Your task to perform on an android device: Go to internet settings Image 0: 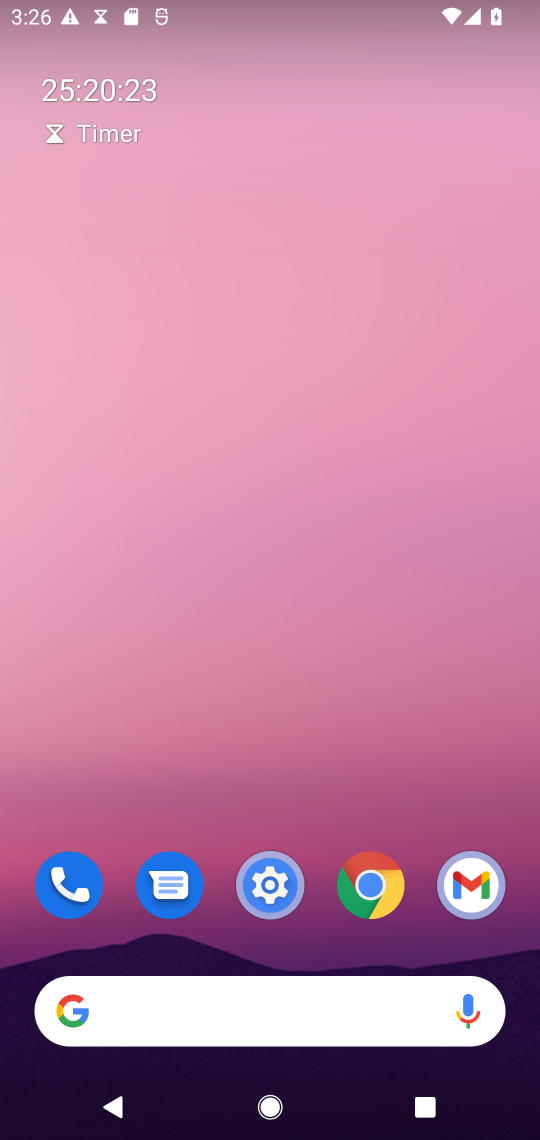
Step 0: drag from (315, 986) to (440, 58)
Your task to perform on an android device: Go to internet settings Image 1: 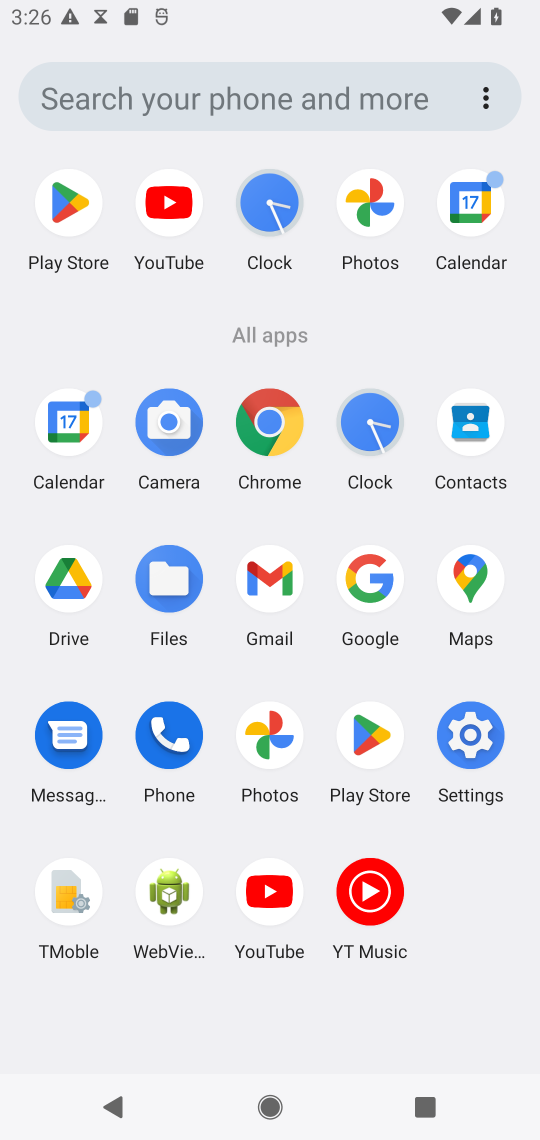
Step 1: click (480, 738)
Your task to perform on an android device: Go to internet settings Image 2: 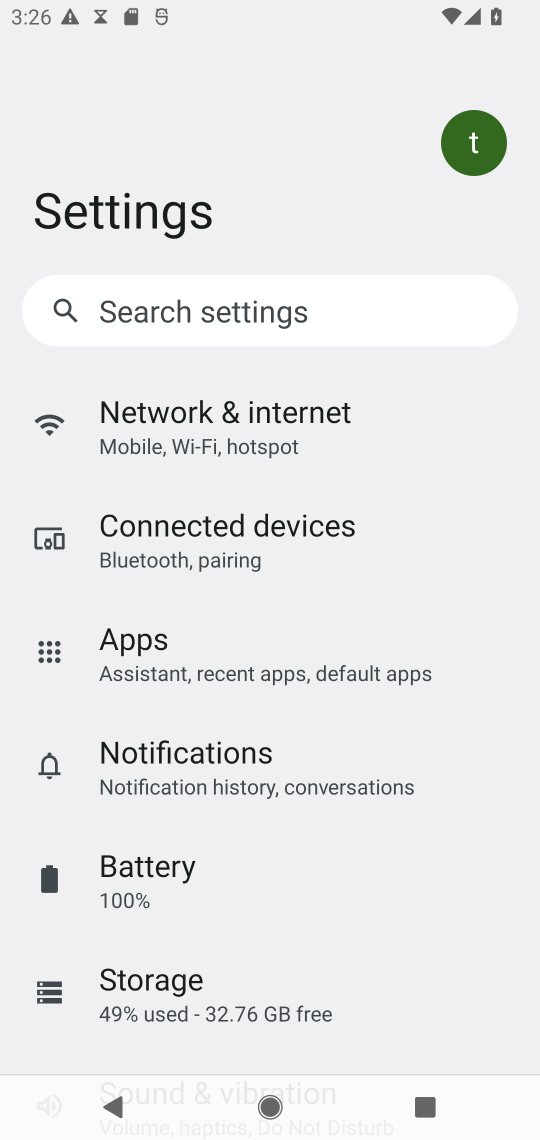
Step 2: click (220, 437)
Your task to perform on an android device: Go to internet settings Image 3: 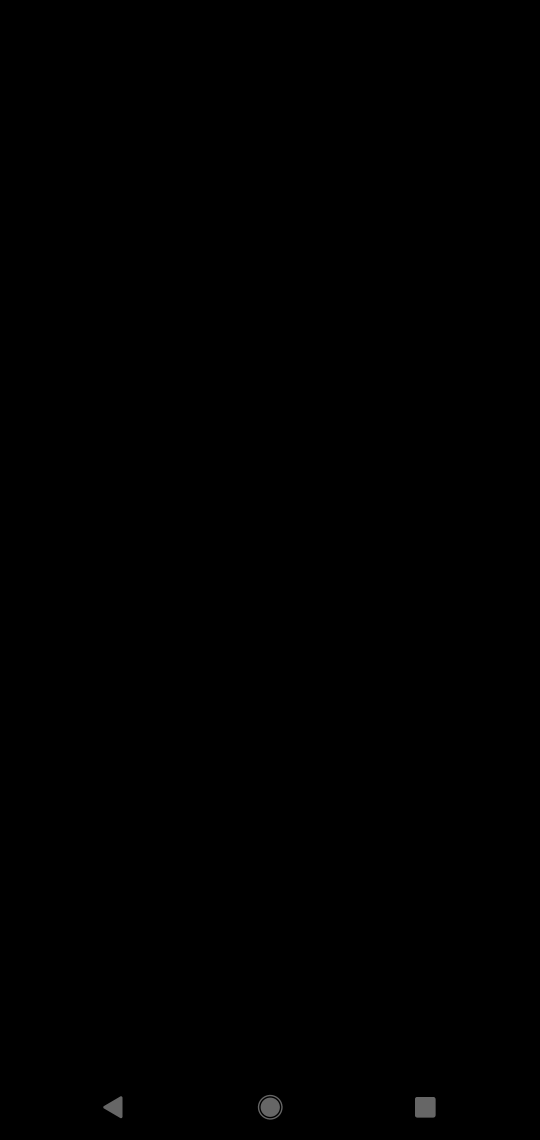
Step 3: press back button
Your task to perform on an android device: Go to internet settings Image 4: 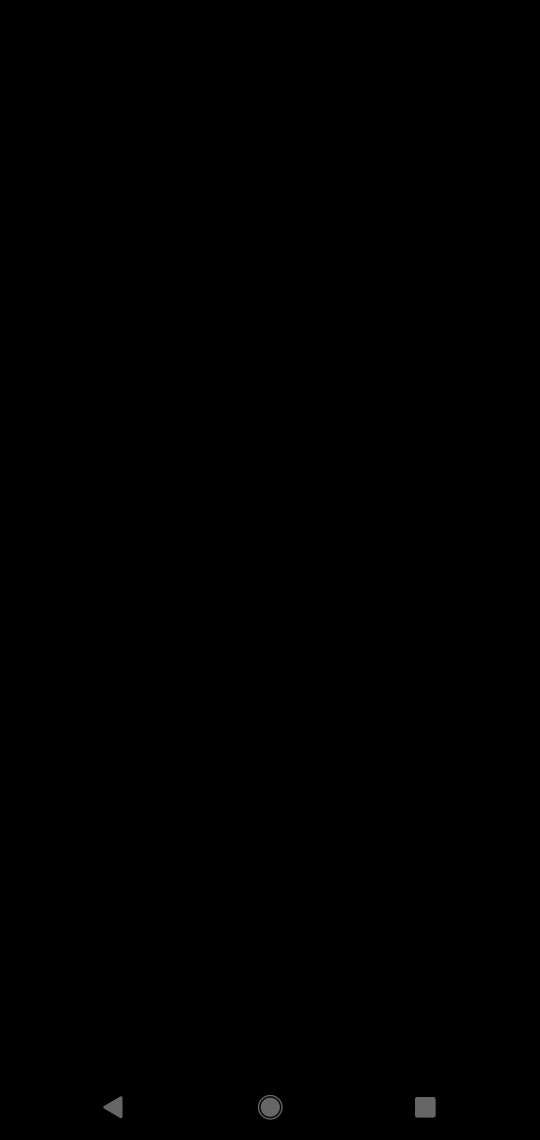
Step 4: press back button
Your task to perform on an android device: Go to internet settings Image 5: 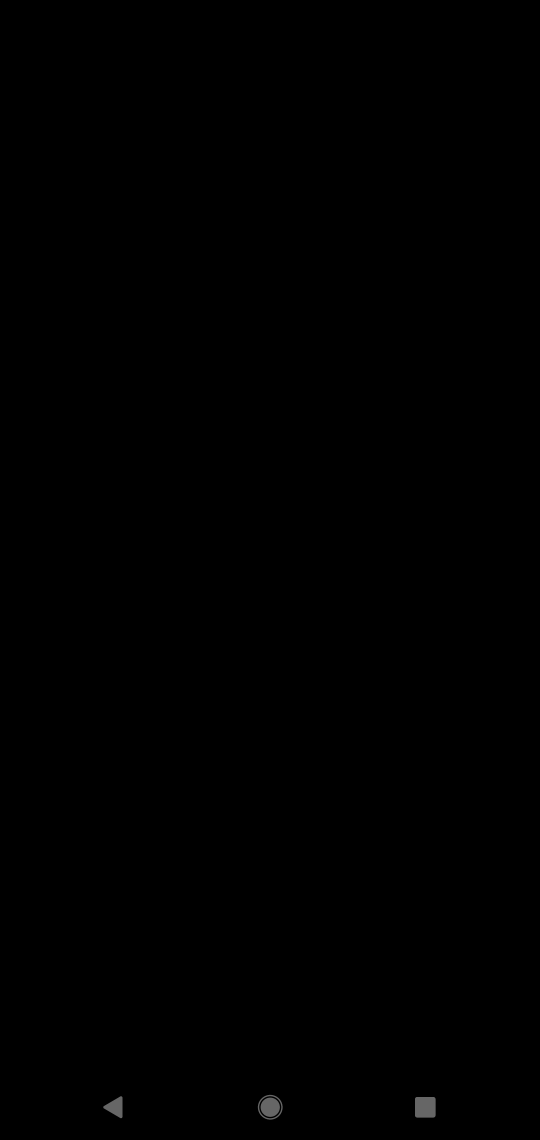
Step 5: press home button
Your task to perform on an android device: Go to internet settings Image 6: 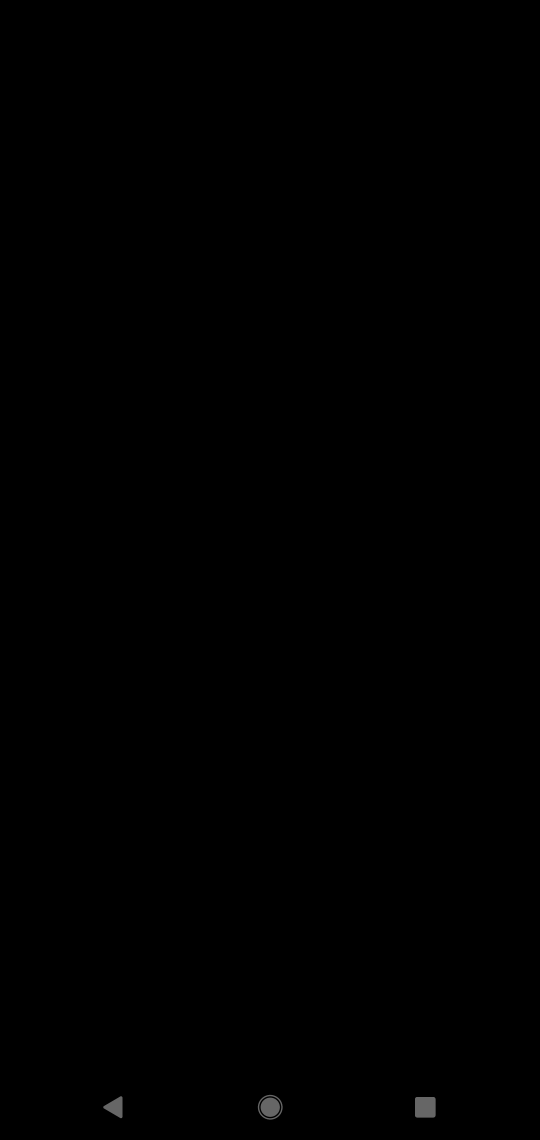
Step 6: press home button
Your task to perform on an android device: Go to internet settings Image 7: 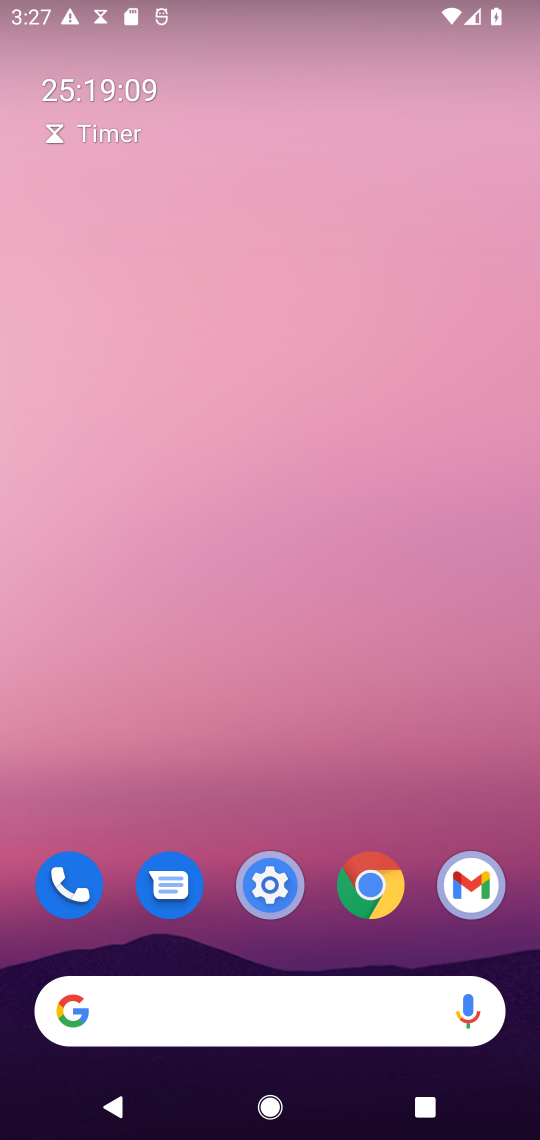
Step 7: drag from (349, 775) to (452, 92)
Your task to perform on an android device: Go to internet settings Image 8: 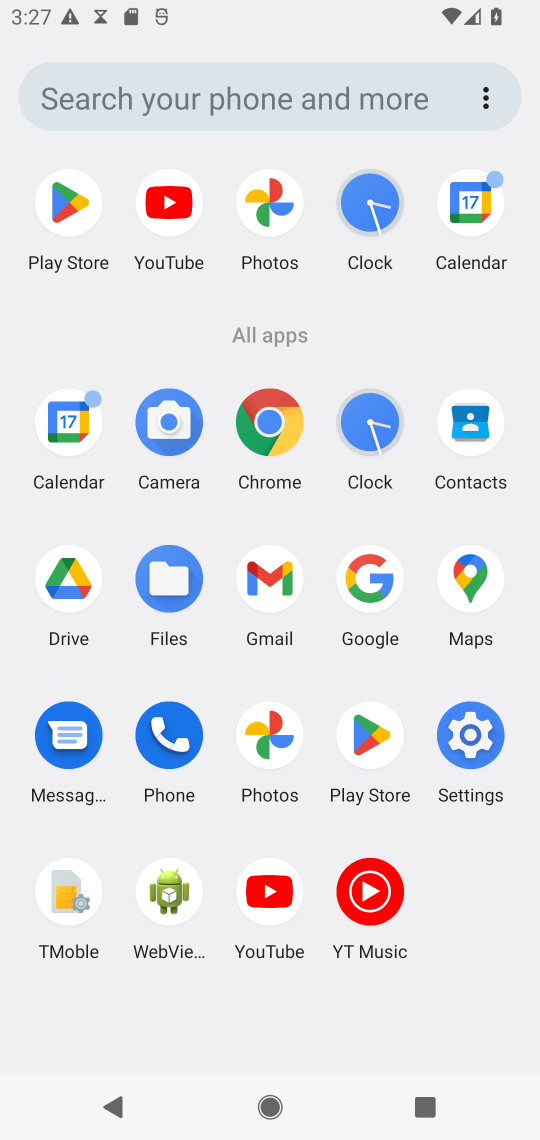
Step 8: click (471, 745)
Your task to perform on an android device: Go to internet settings Image 9: 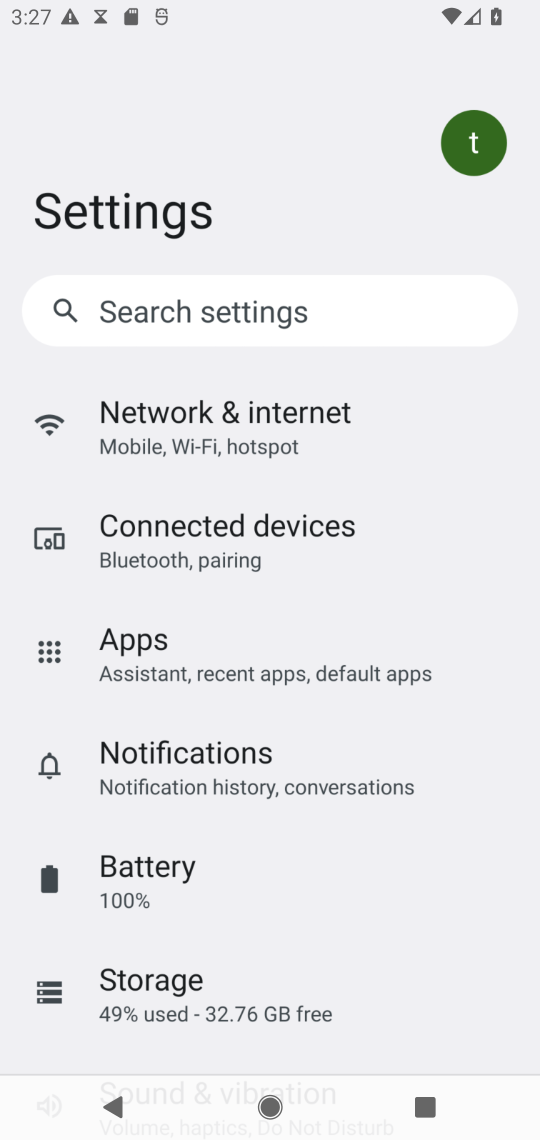
Step 9: click (211, 422)
Your task to perform on an android device: Go to internet settings Image 10: 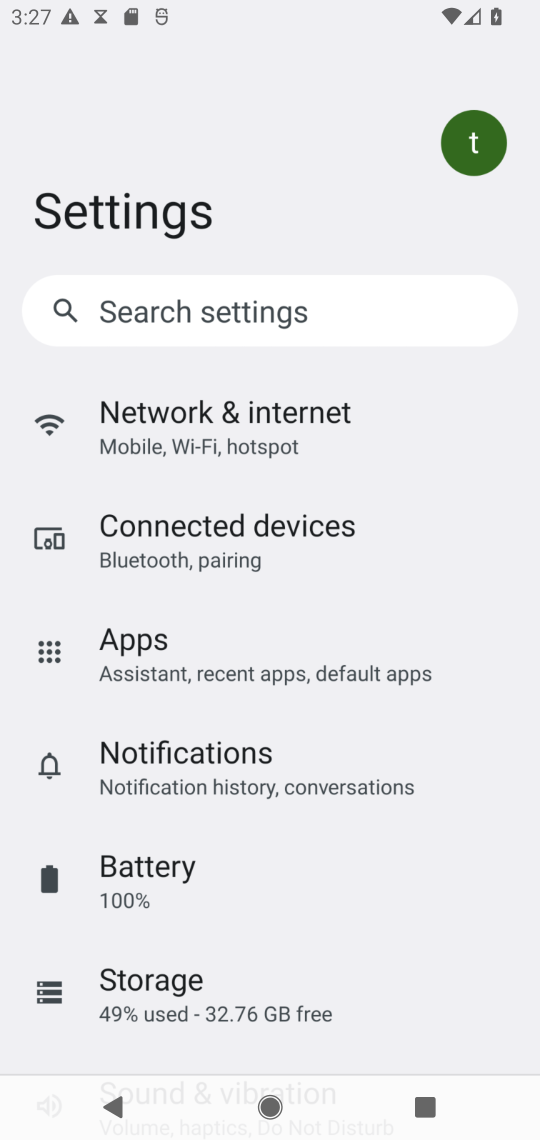
Step 10: click (211, 421)
Your task to perform on an android device: Go to internet settings Image 11: 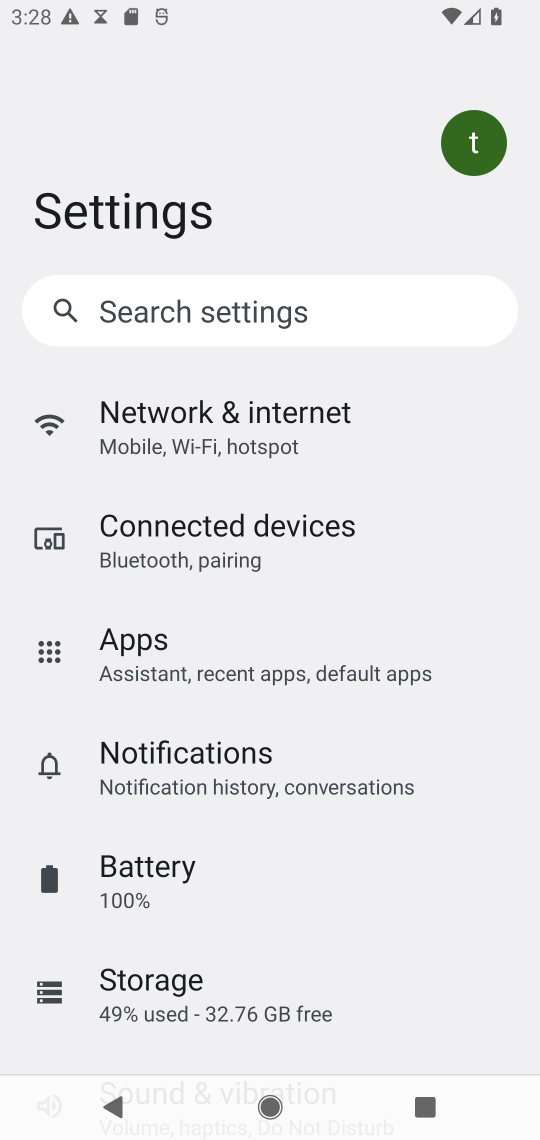
Step 11: click (211, 418)
Your task to perform on an android device: Go to internet settings Image 12: 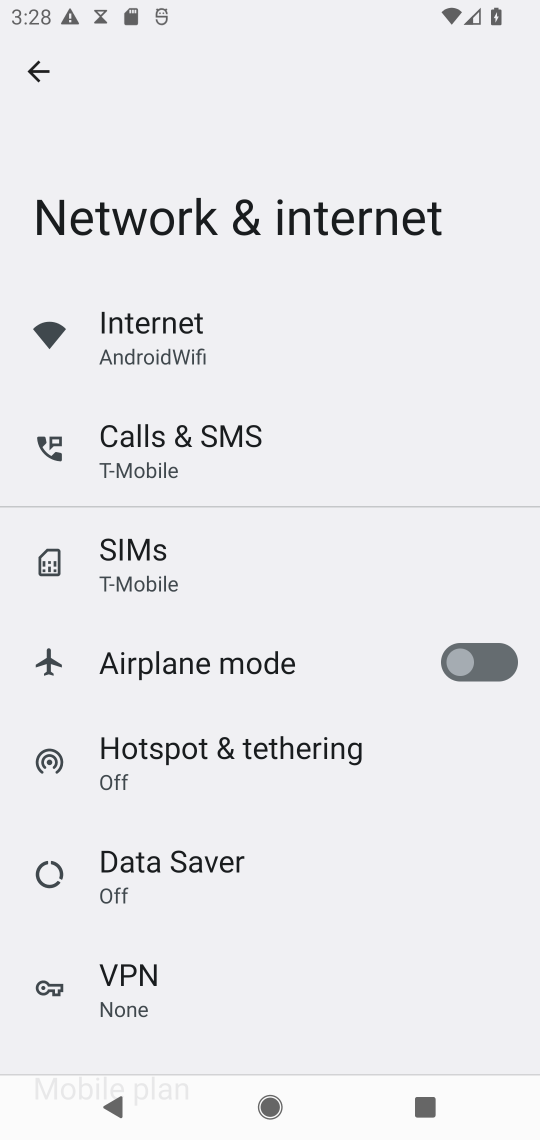
Step 12: task complete